Your task to perform on an android device: open app "Instagram" Image 0: 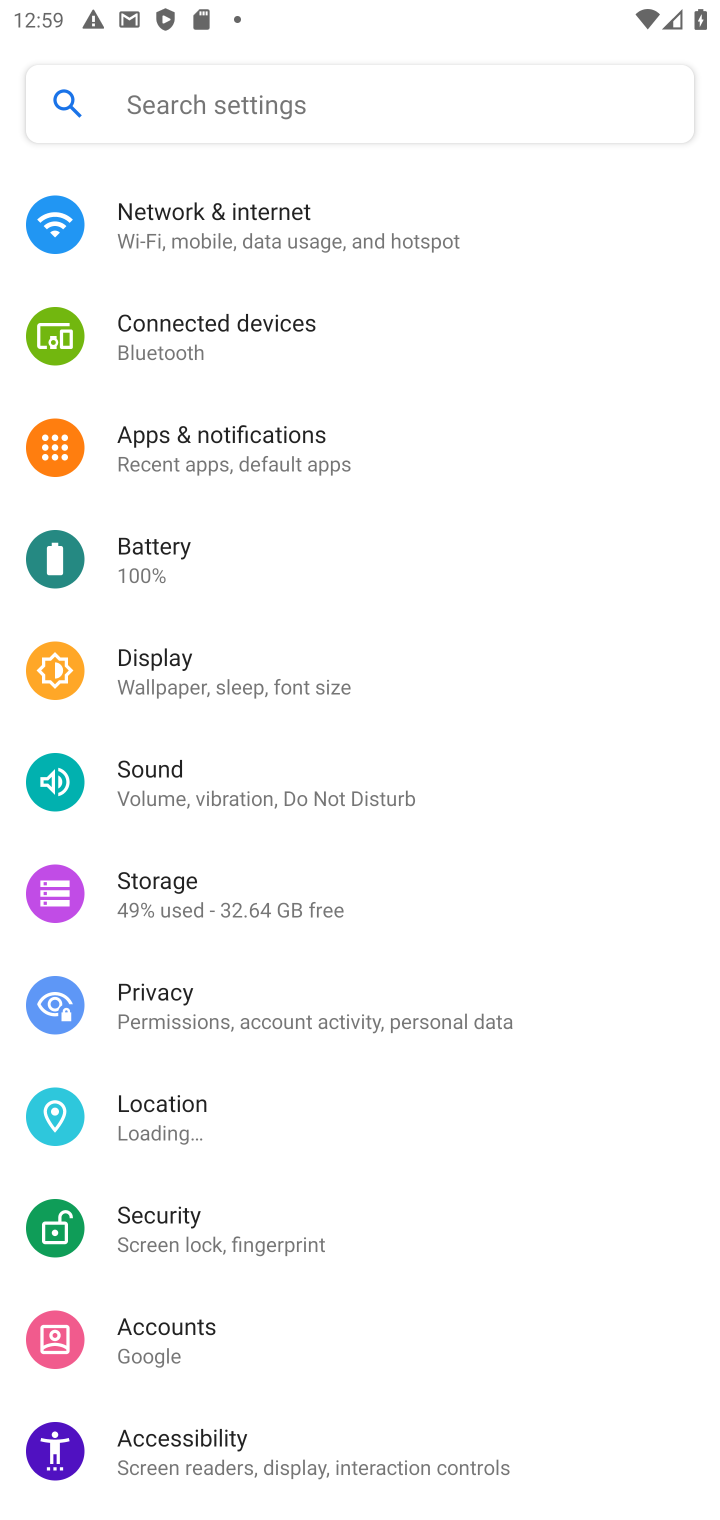
Step 0: press home button
Your task to perform on an android device: open app "Instagram" Image 1: 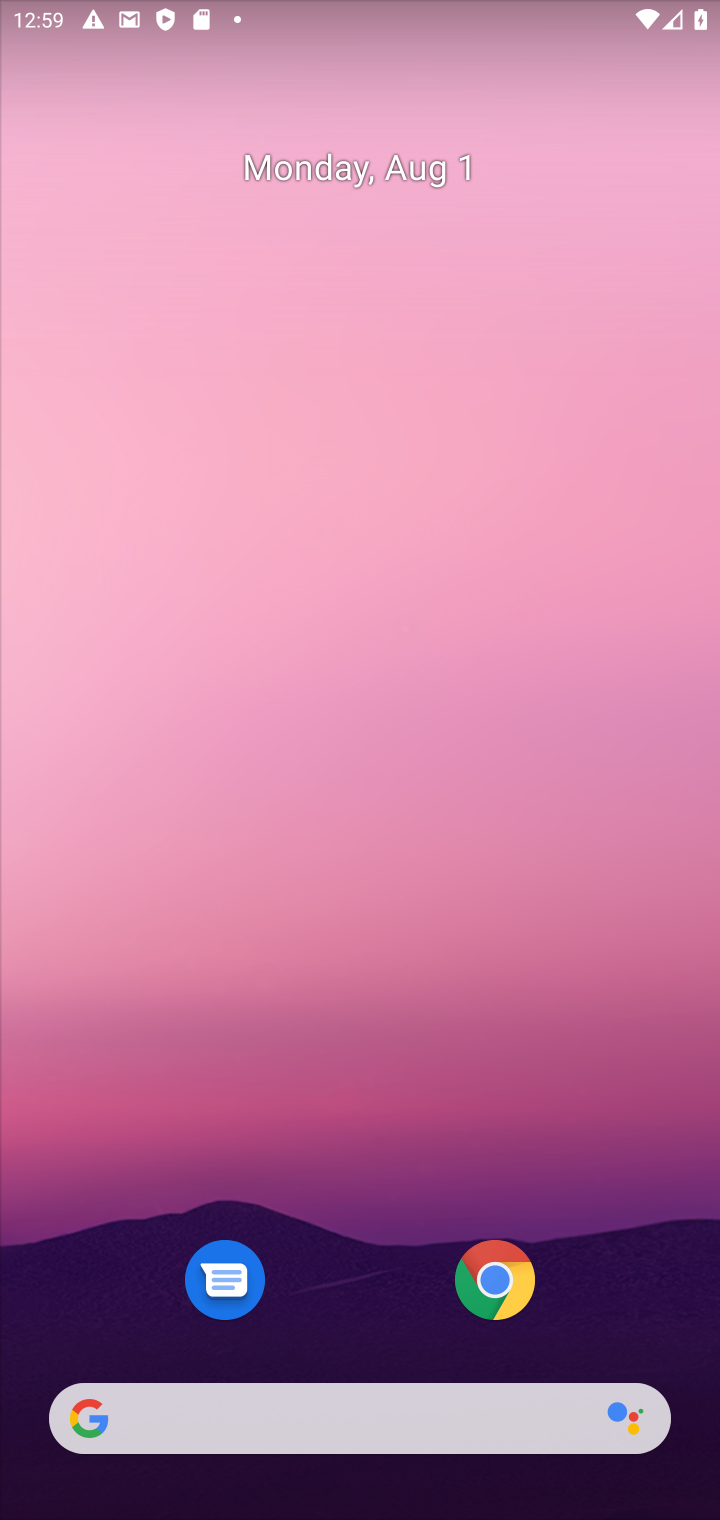
Step 1: drag from (406, 1265) to (555, 6)
Your task to perform on an android device: open app "Instagram" Image 2: 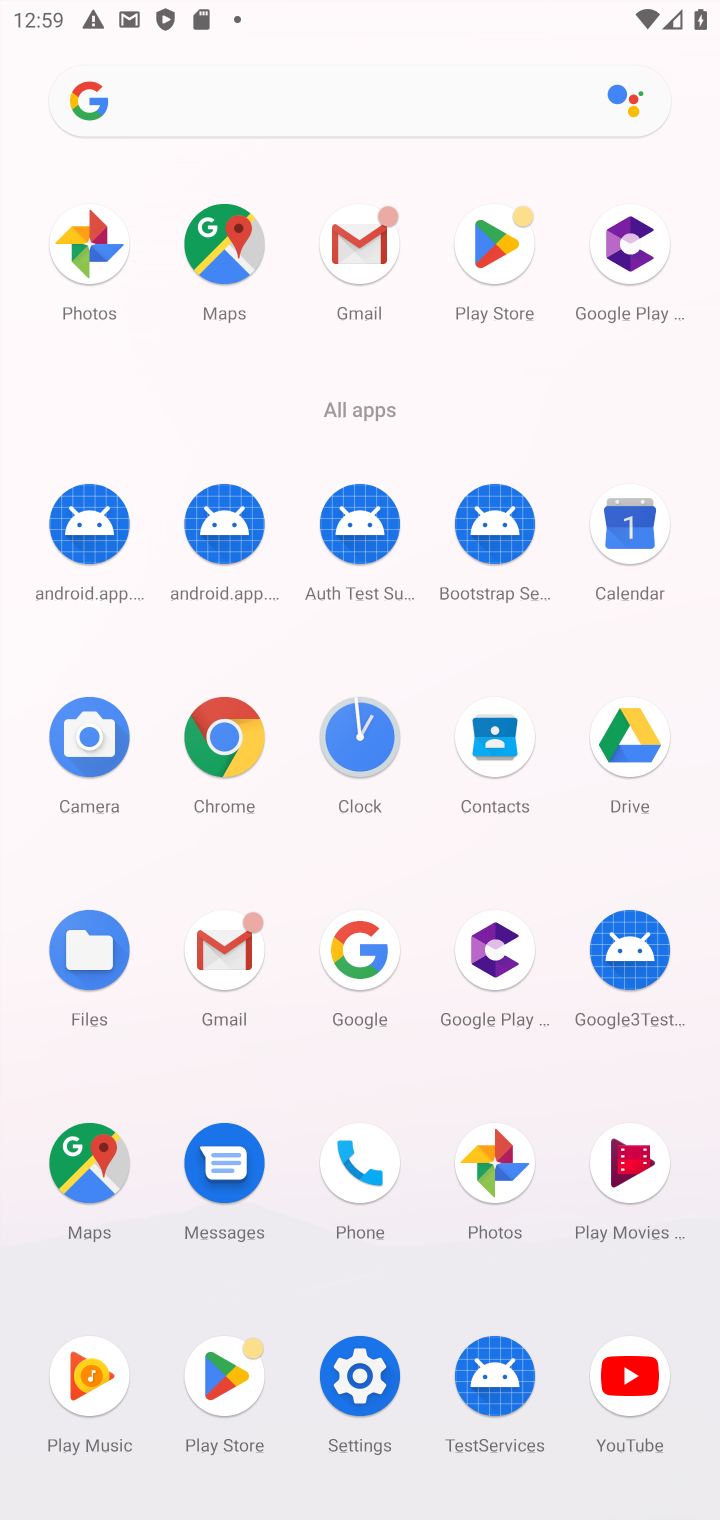
Step 2: click (512, 262)
Your task to perform on an android device: open app "Instagram" Image 3: 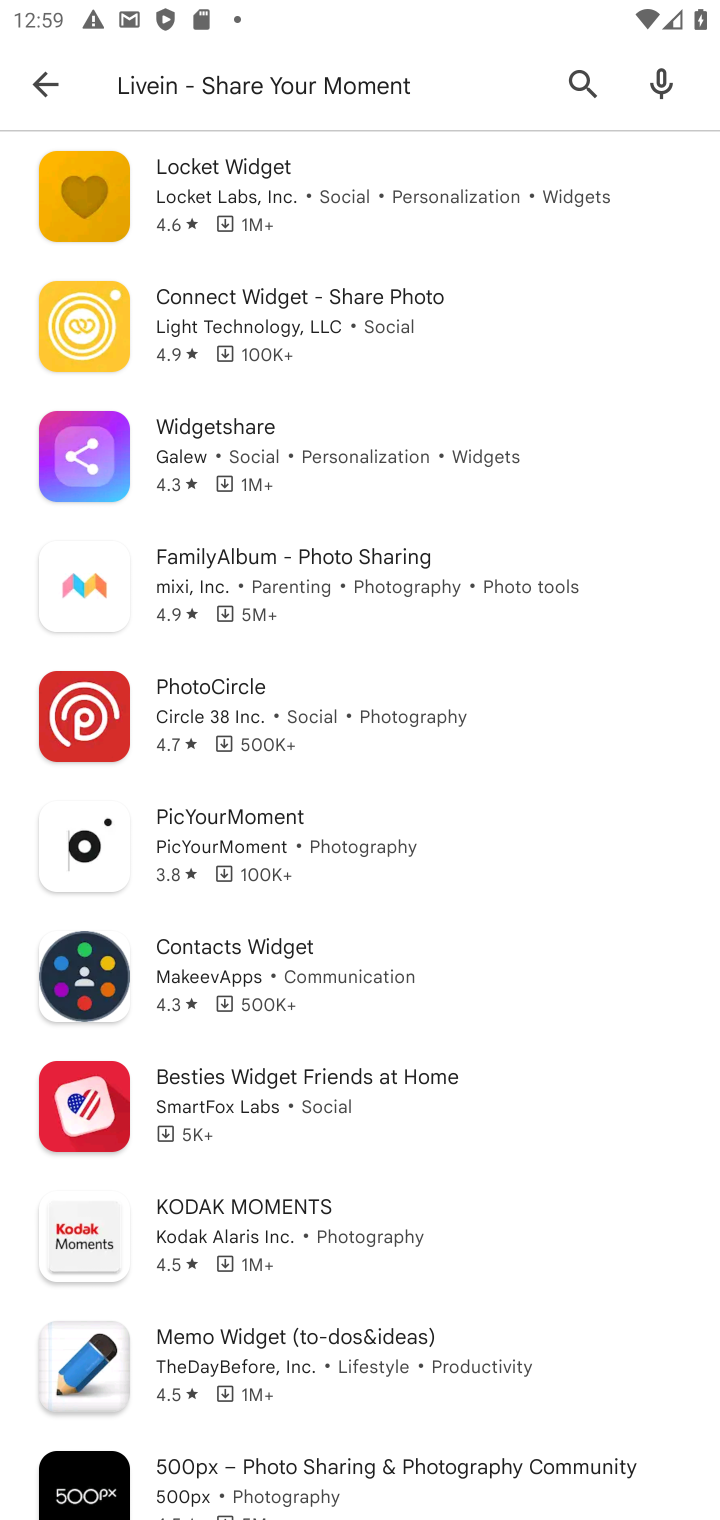
Step 3: click (495, 80)
Your task to perform on an android device: open app "Instagram" Image 4: 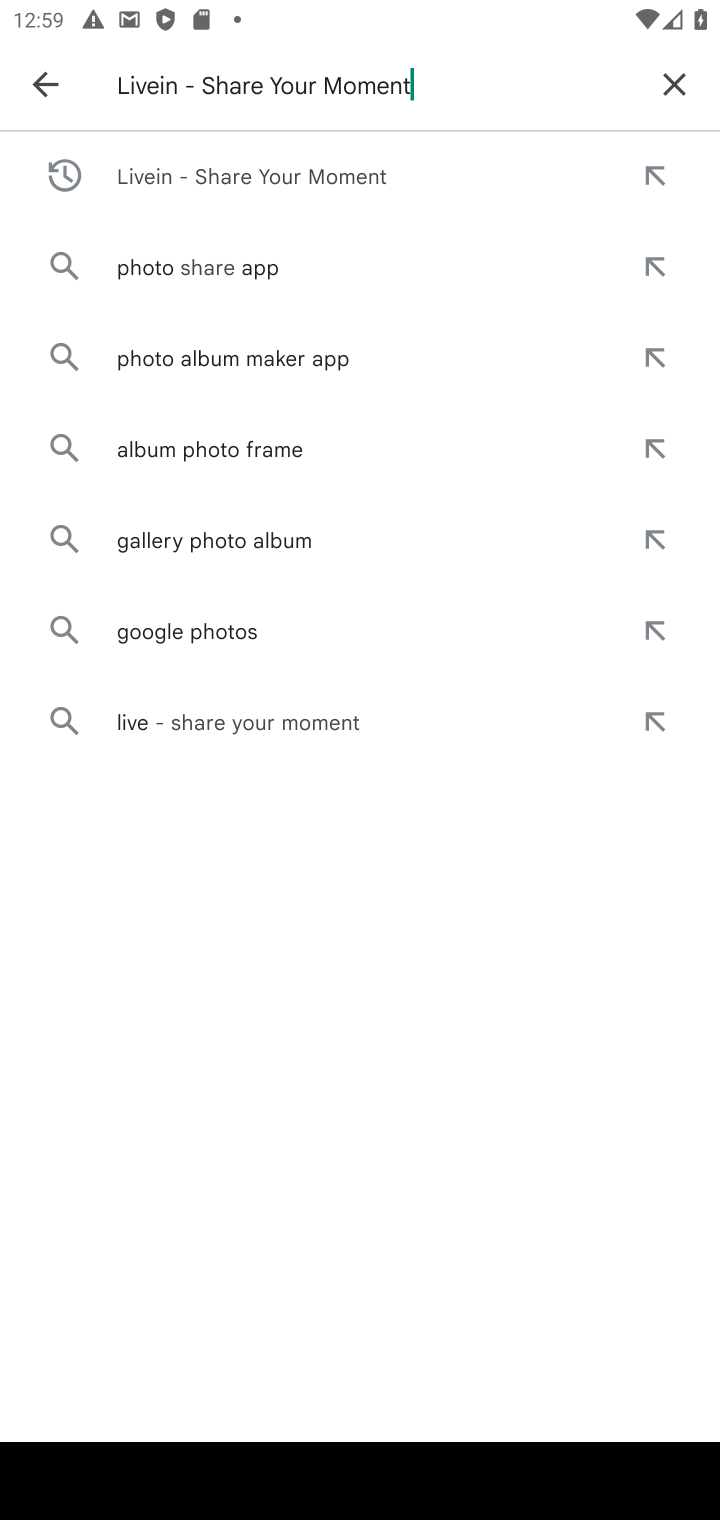
Step 4: click (670, 80)
Your task to perform on an android device: open app "Instagram" Image 5: 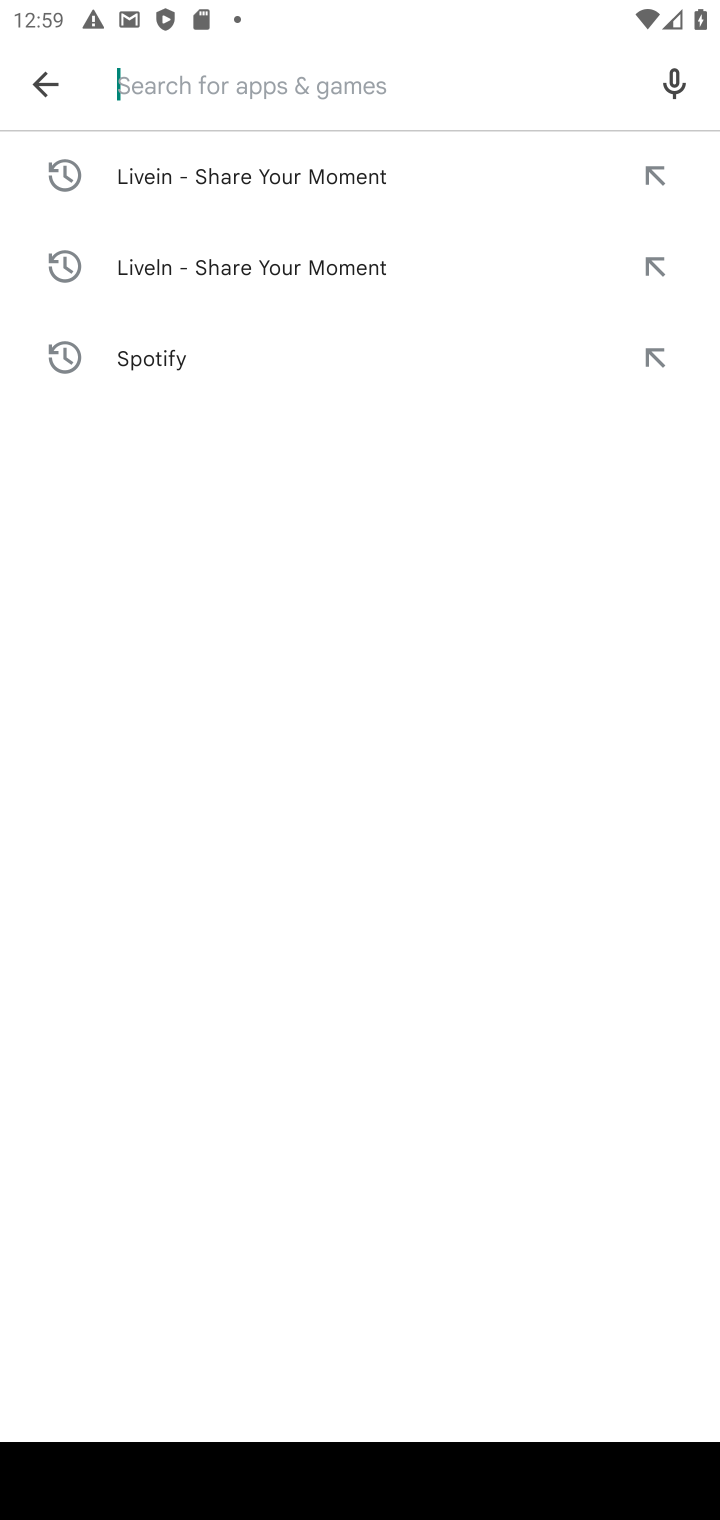
Step 5: type "Instagram"
Your task to perform on an android device: open app "Instagram" Image 6: 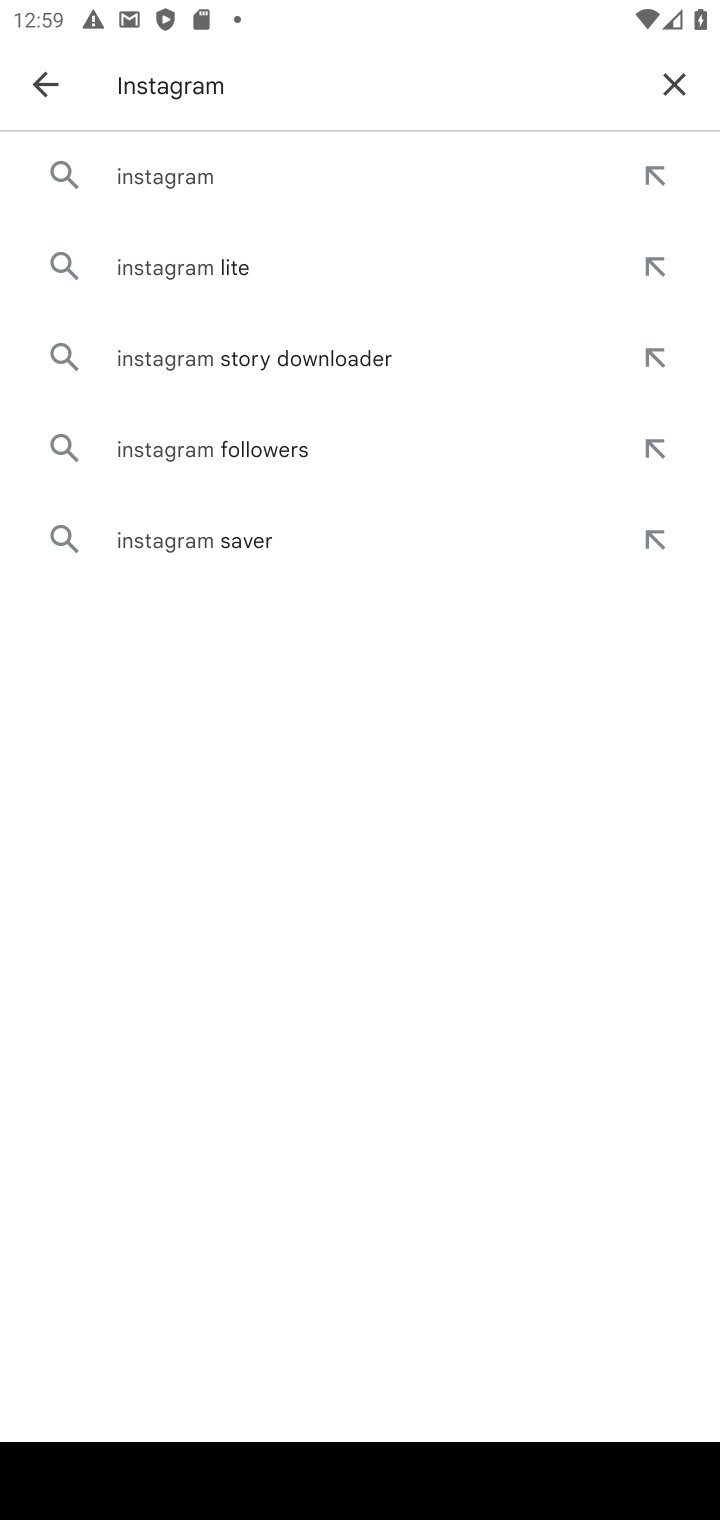
Step 6: press enter
Your task to perform on an android device: open app "Instagram" Image 7: 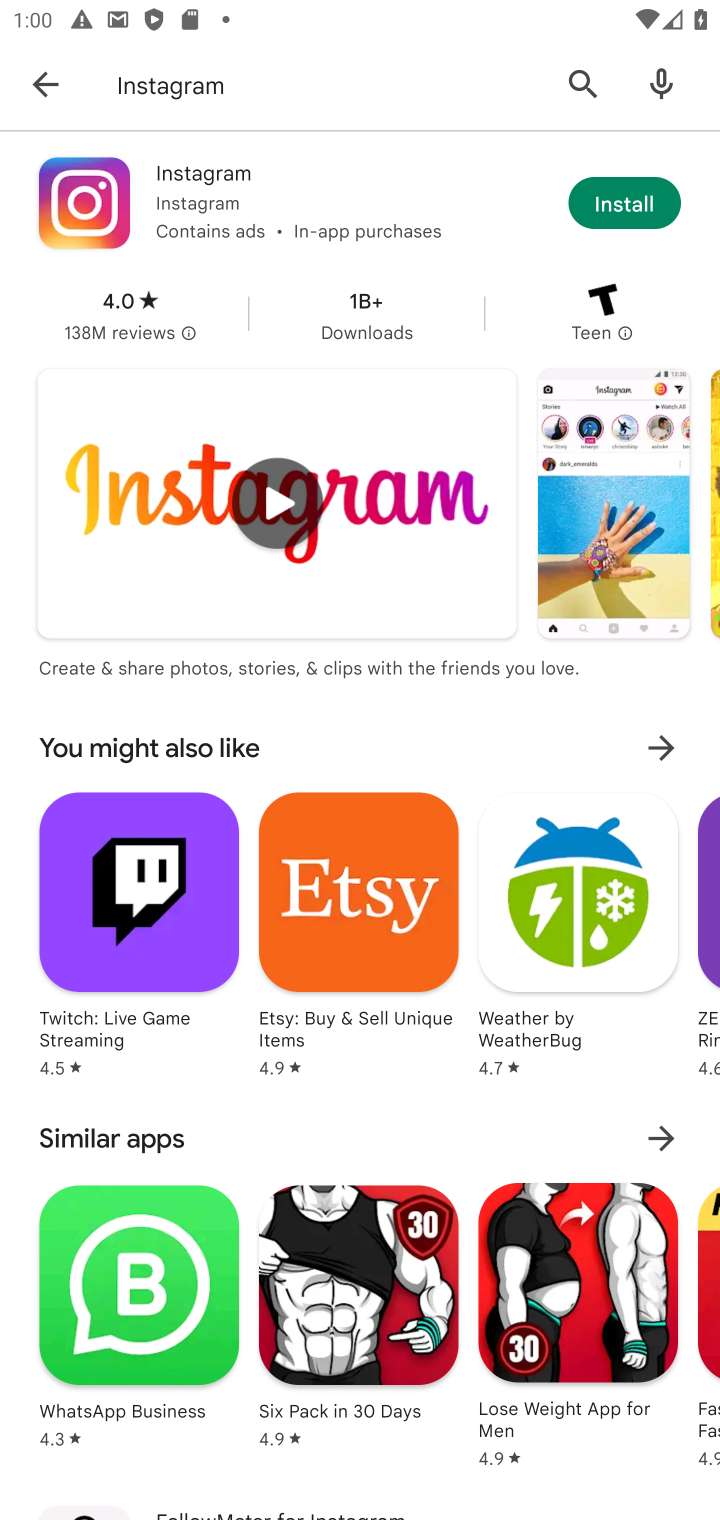
Step 7: task complete